Your task to perform on an android device: toggle priority inbox in the gmail app Image 0: 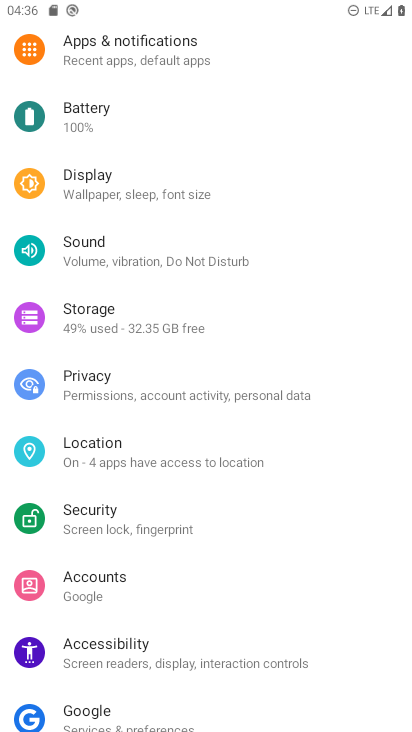
Step 0: press home button
Your task to perform on an android device: toggle priority inbox in the gmail app Image 1: 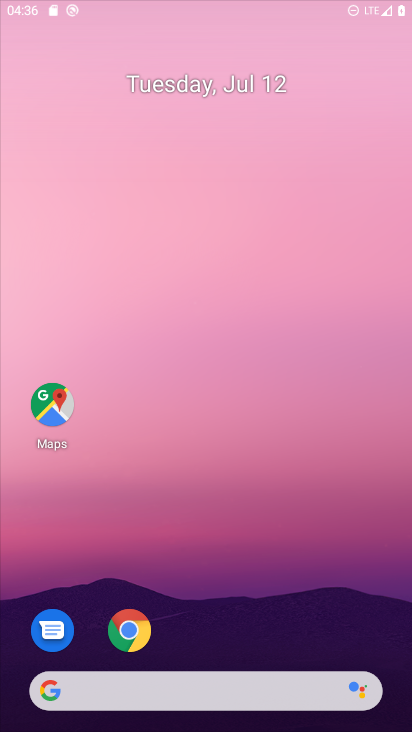
Step 1: drag from (298, 705) to (322, 116)
Your task to perform on an android device: toggle priority inbox in the gmail app Image 2: 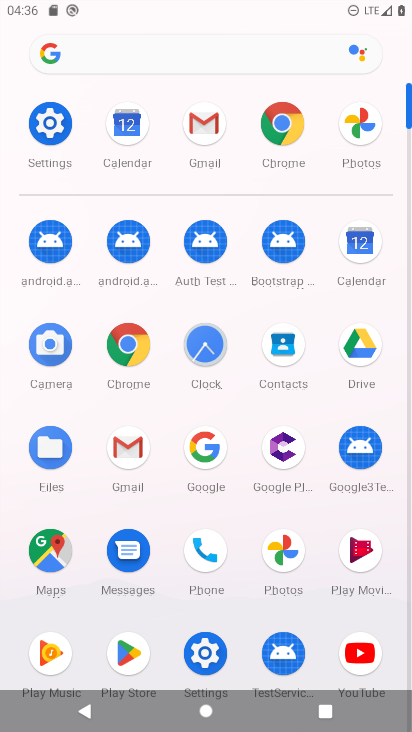
Step 2: click (120, 441)
Your task to perform on an android device: toggle priority inbox in the gmail app Image 3: 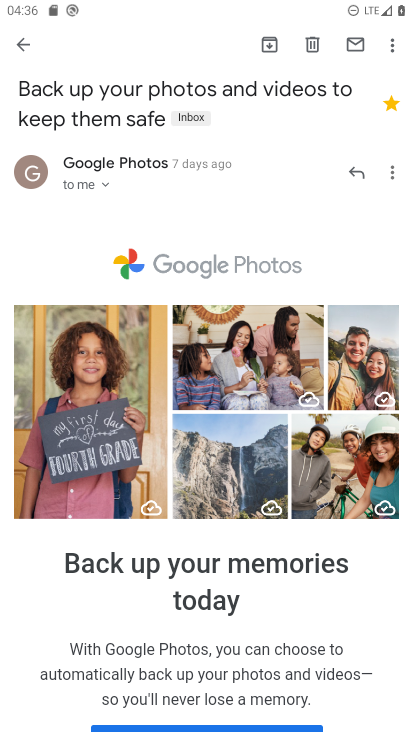
Step 3: press back button
Your task to perform on an android device: toggle priority inbox in the gmail app Image 4: 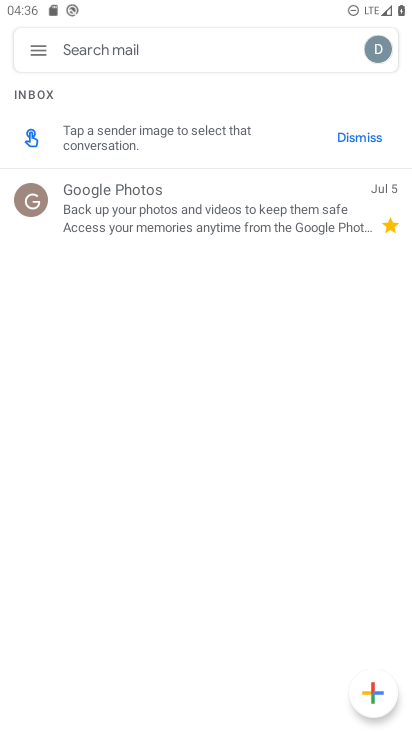
Step 4: click (40, 56)
Your task to perform on an android device: toggle priority inbox in the gmail app Image 5: 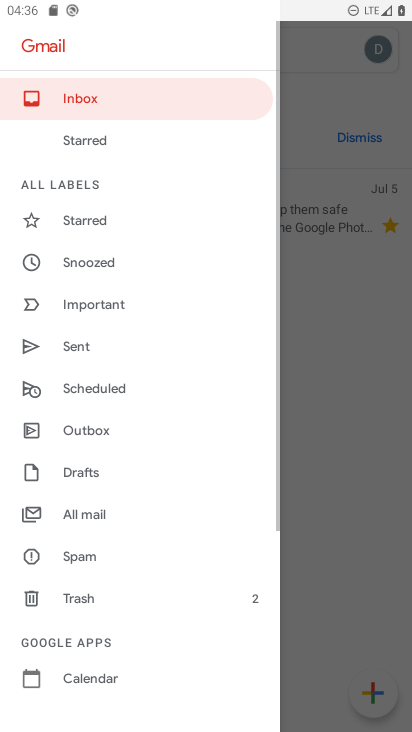
Step 5: drag from (159, 475) to (178, 46)
Your task to perform on an android device: toggle priority inbox in the gmail app Image 6: 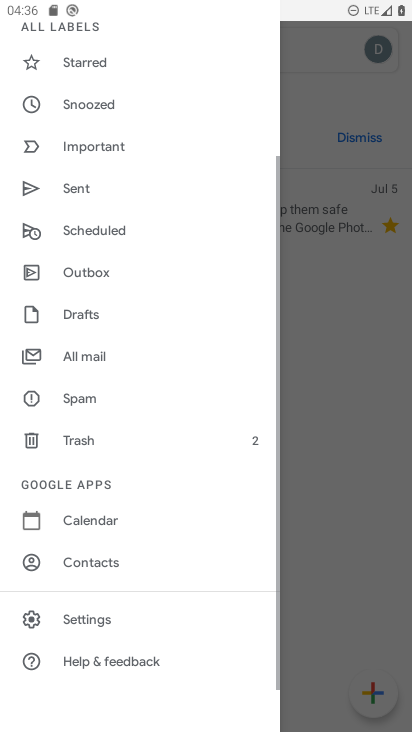
Step 6: click (76, 620)
Your task to perform on an android device: toggle priority inbox in the gmail app Image 7: 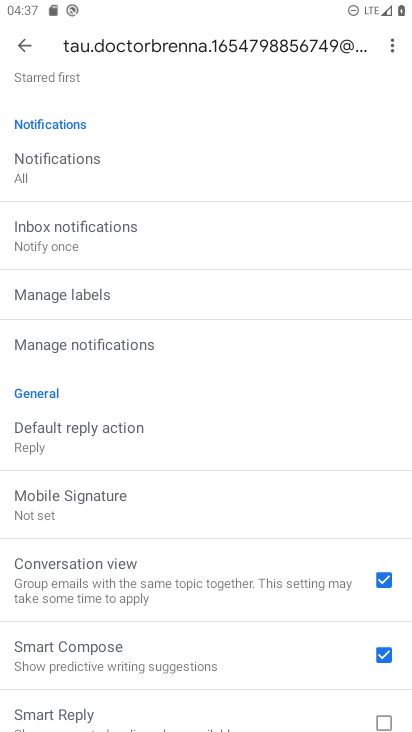
Step 7: drag from (106, 249) to (117, 676)
Your task to perform on an android device: toggle priority inbox in the gmail app Image 8: 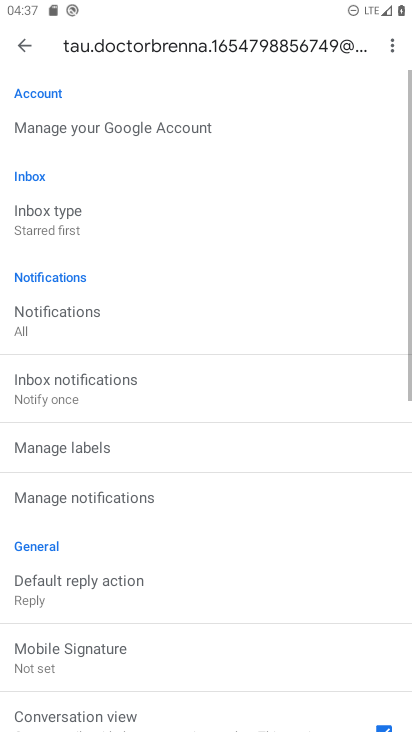
Step 8: click (69, 223)
Your task to perform on an android device: toggle priority inbox in the gmail app Image 9: 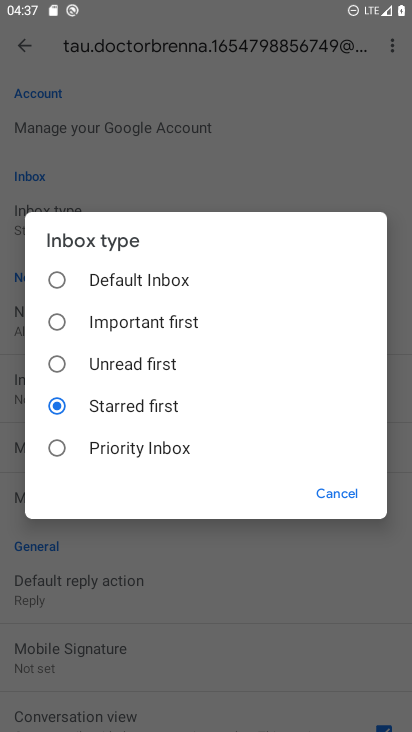
Step 9: click (59, 443)
Your task to perform on an android device: toggle priority inbox in the gmail app Image 10: 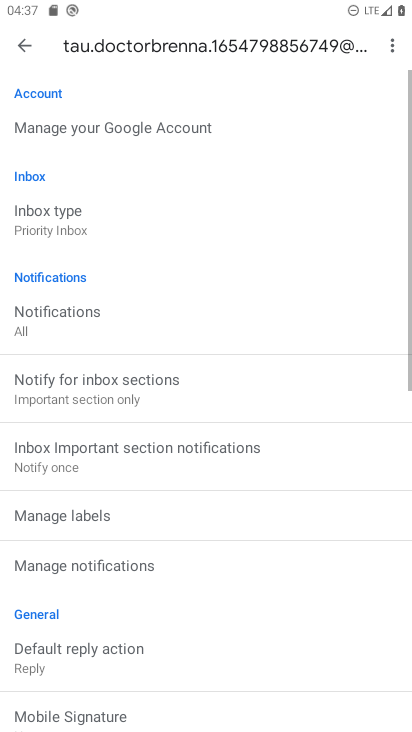
Step 10: task complete